Your task to perform on an android device: turn smart compose on in the gmail app Image 0: 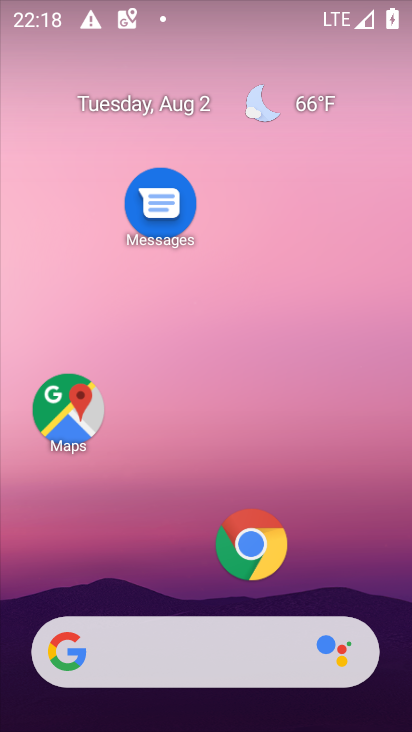
Step 0: drag from (182, 559) to (187, 191)
Your task to perform on an android device: turn smart compose on in the gmail app Image 1: 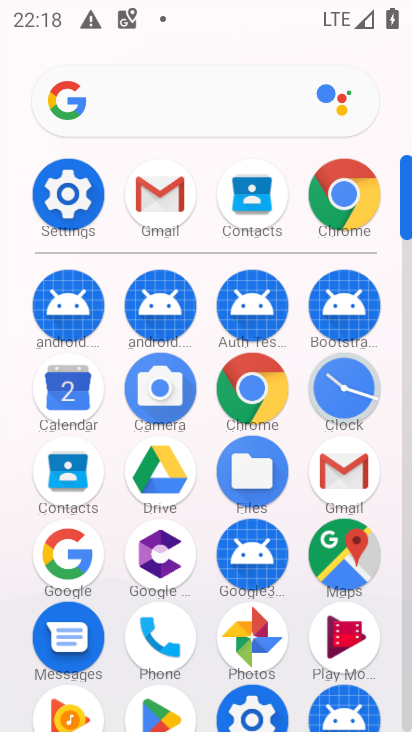
Step 1: click (146, 219)
Your task to perform on an android device: turn smart compose on in the gmail app Image 2: 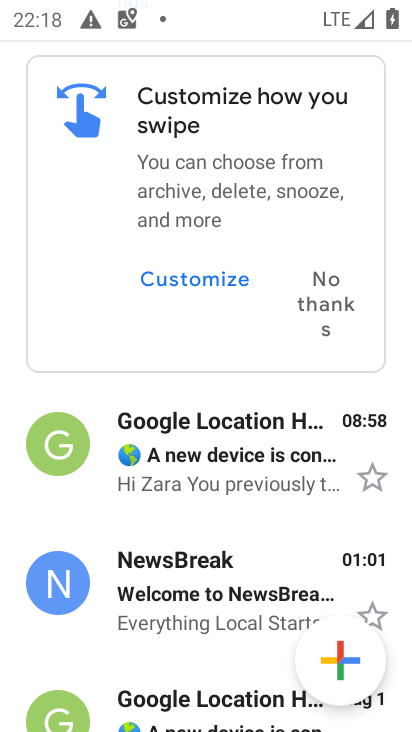
Step 2: drag from (116, 229) to (125, 501)
Your task to perform on an android device: turn smart compose on in the gmail app Image 3: 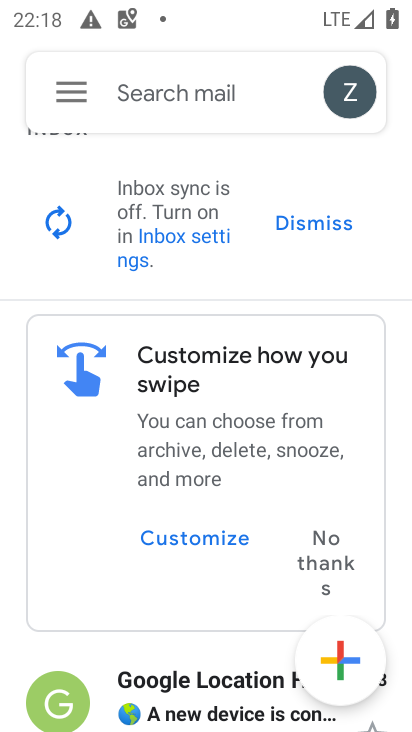
Step 3: click (65, 94)
Your task to perform on an android device: turn smart compose on in the gmail app Image 4: 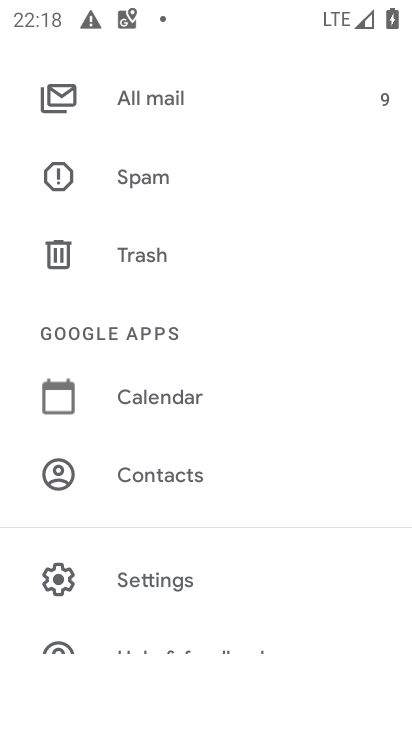
Step 4: drag from (191, 582) to (201, 394)
Your task to perform on an android device: turn smart compose on in the gmail app Image 5: 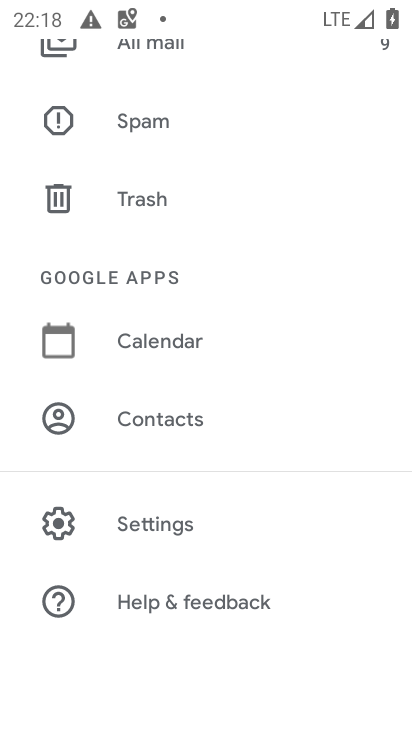
Step 5: click (140, 519)
Your task to perform on an android device: turn smart compose on in the gmail app Image 6: 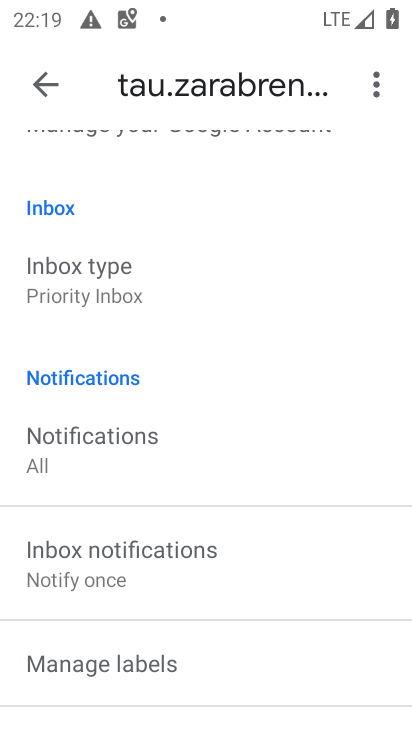
Step 6: task complete